Your task to perform on an android device: change notifications settings Image 0: 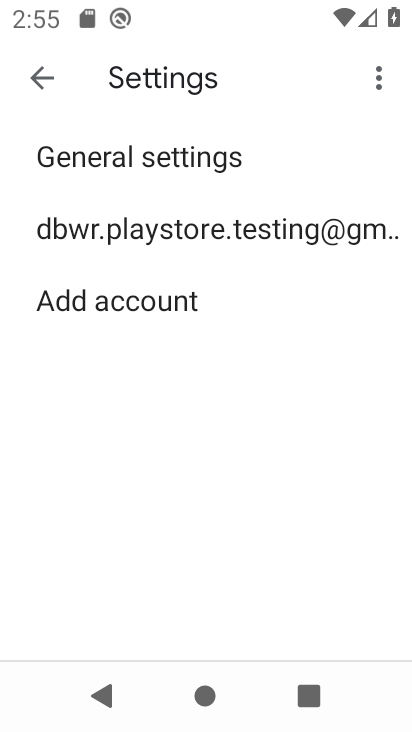
Step 0: press home button
Your task to perform on an android device: change notifications settings Image 1: 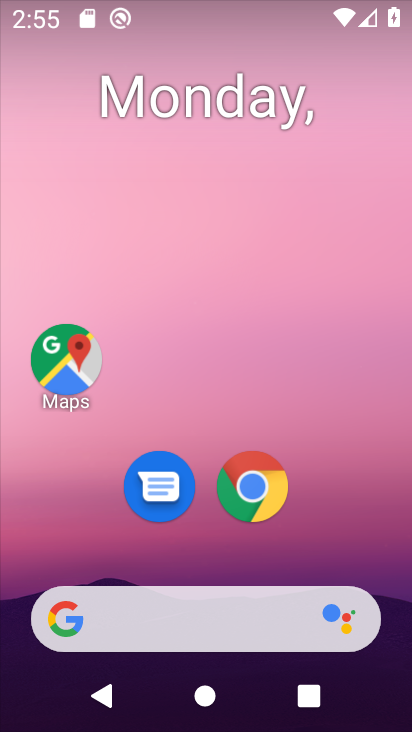
Step 1: drag from (247, 592) to (246, 94)
Your task to perform on an android device: change notifications settings Image 2: 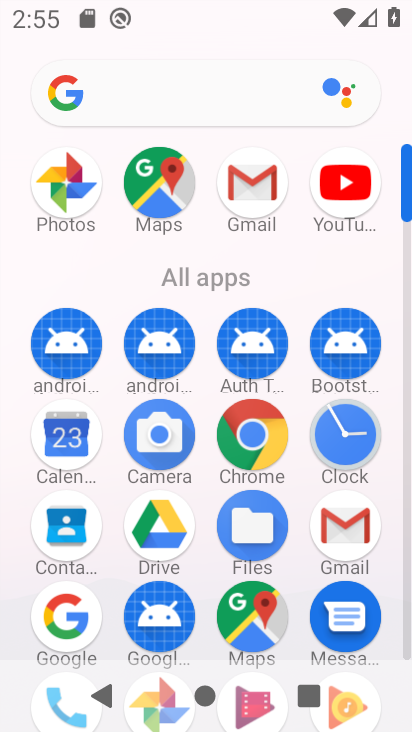
Step 2: drag from (219, 561) to (256, 141)
Your task to perform on an android device: change notifications settings Image 3: 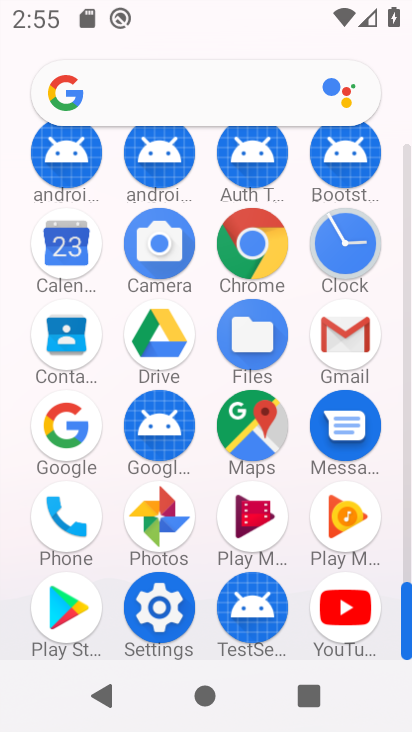
Step 3: click (155, 630)
Your task to perform on an android device: change notifications settings Image 4: 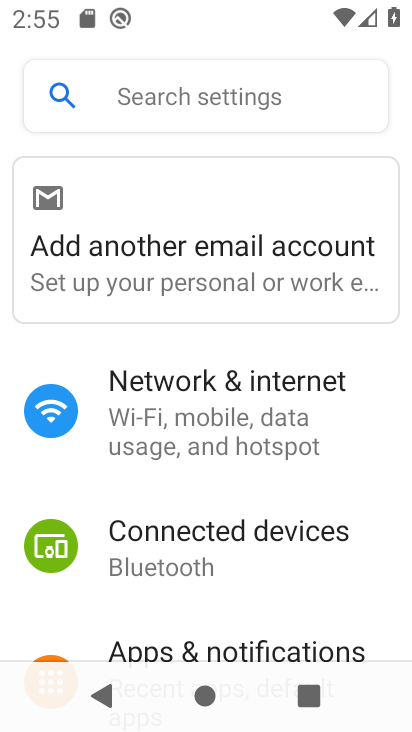
Step 4: click (207, 648)
Your task to perform on an android device: change notifications settings Image 5: 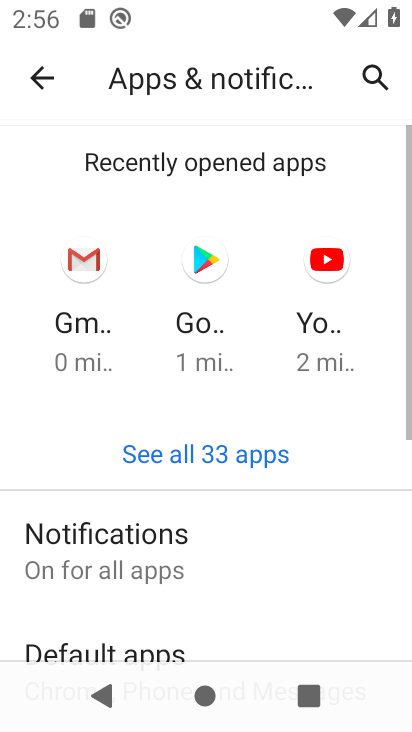
Step 5: drag from (161, 571) to (185, 205)
Your task to perform on an android device: change notifications settings Image 6: 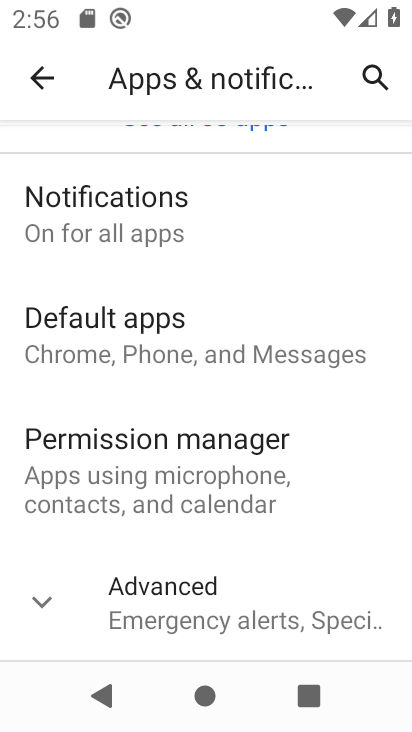
Step 6: click (167, 233)
Your task to perform on an android device: change notifications settings Image 7: 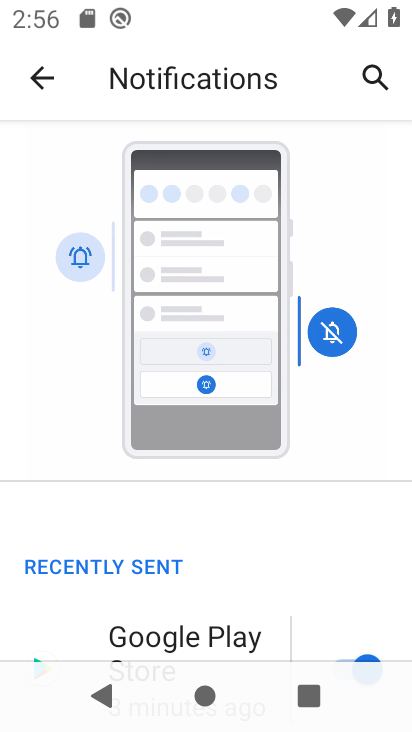
Step 7: drag from (255, 545) to (296, 137)
Your task to perform on an android device: change notifications settings Image 8: 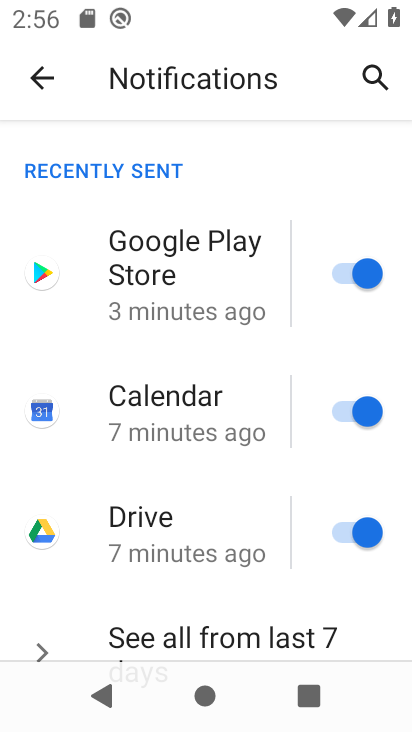
Step 8: click (327, 254)
Your task to perform on an android device: change notifications settings Image 9: 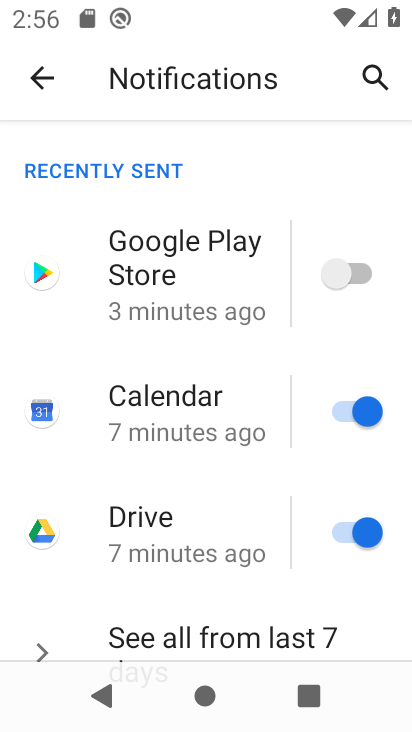
Step 9: click (345, 410)
Your task to perform on an android device: change notifications settings Image 10: 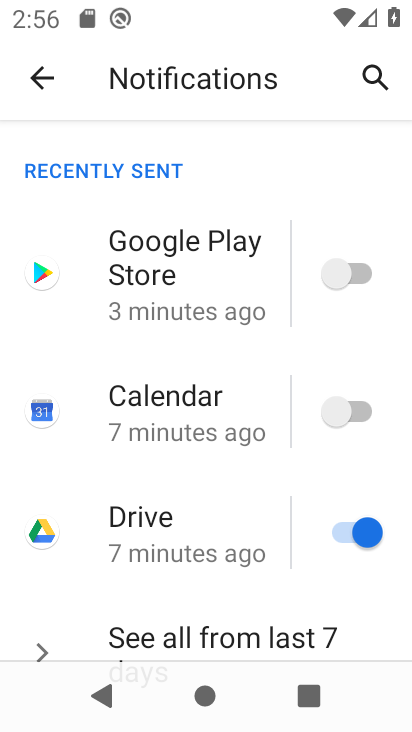
Step 10: click (346, 533)
Your task to perform on an android device: change notifications settings Image 11: 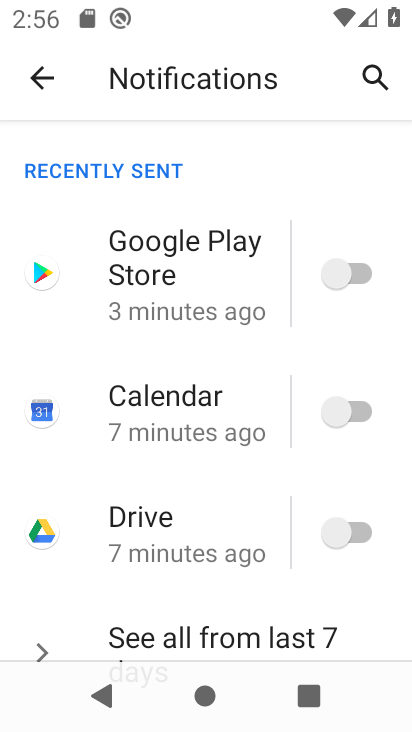
Step 11: drag from (282, 534) to (307, 229)
Your task to perform on an android device: change notifications settings Image 12: 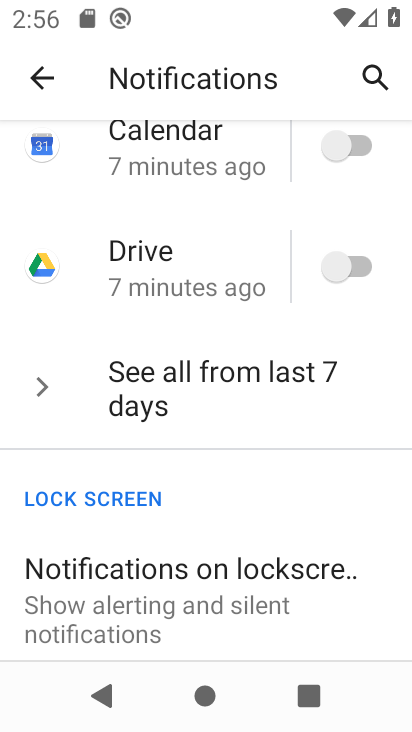
Step 12: click (213, 386)
Your task to perform on an android device: change notifications settings Image 13: 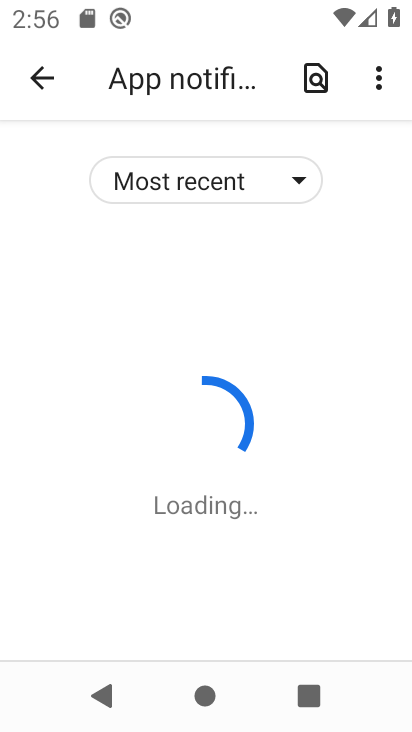
Step 13: drag from (243, 525) to (275, 271)
Your task to perform on an android device: change notifications settings Image 14: 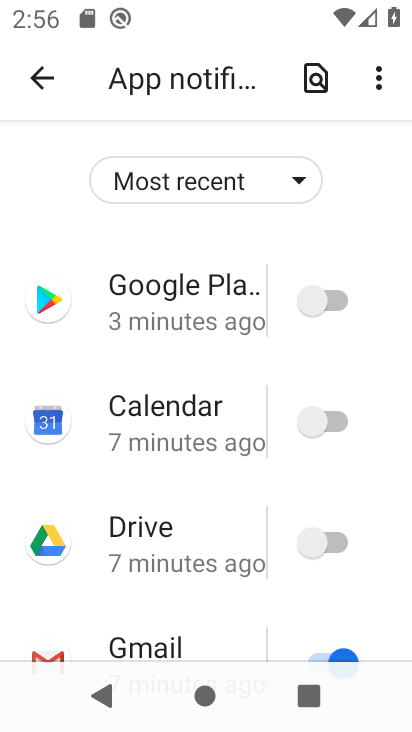
Step 14: drag from (241, 559) to (302, 38)
Your task to perform on an android device: change notifications settings Image 15: 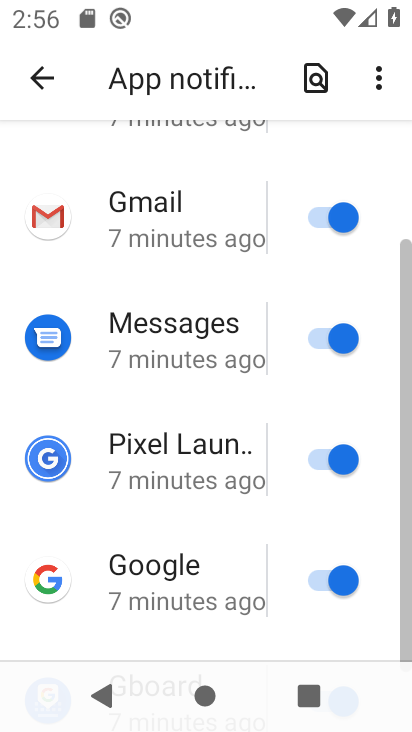
Step 15: click (291, 223)
Your task to perform on an android device: change notifications settings Image 16: 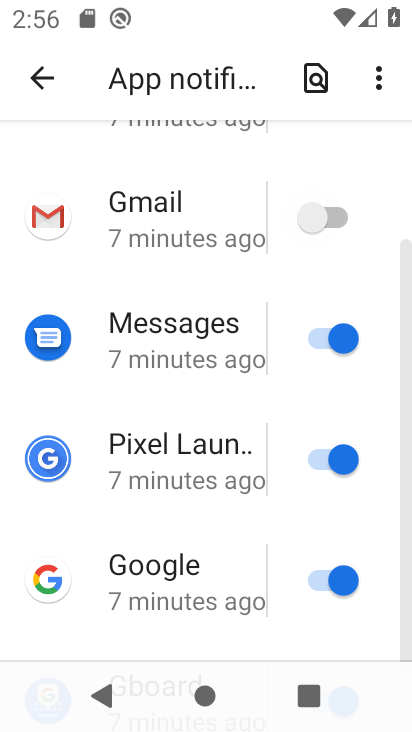
Step 16: click (310, 351)
Your task to perform on an android device: change notifications settings Image 17: 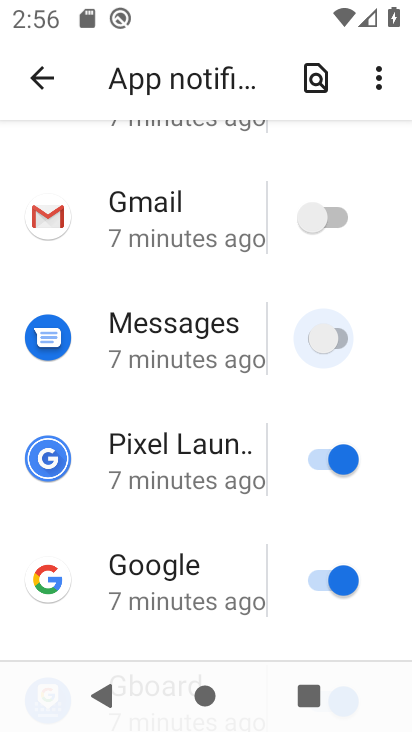
Step 17: click (312, 445)
Your task to perform on an android device: change notifications settings Image 18: 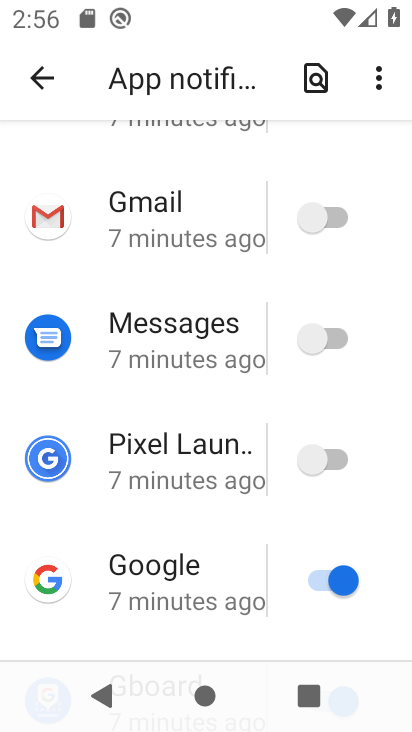
Step 18: click (331, 587)
Your task to perform on an android device: change notifications settings Image 19: 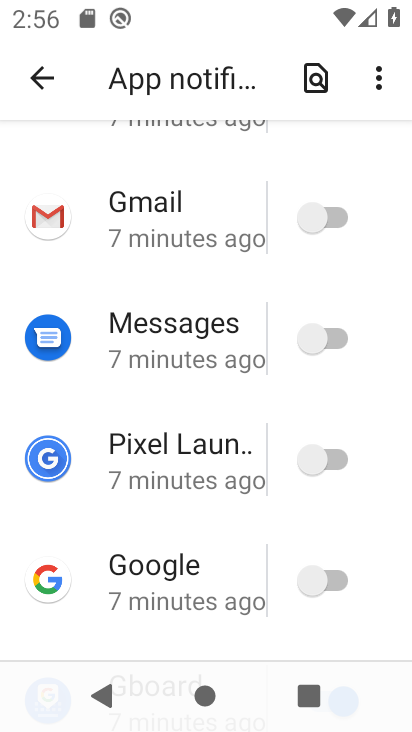
Step 19: drag from (296, 558) to (225, 194)
Your task to perform on an android device: change notifications settings Image 20: 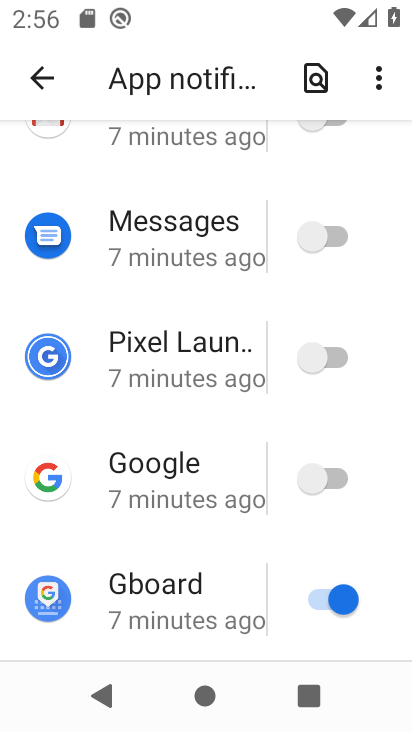
Step 20: click (301, 596)
Your task to perform on an android device: change notifications settings Image 21: 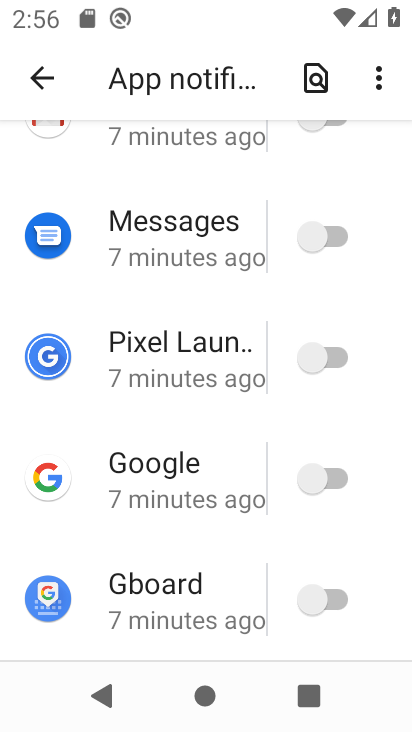
Step 21: task complete